Your task to perform on an android device: Open Android settings Image 0: 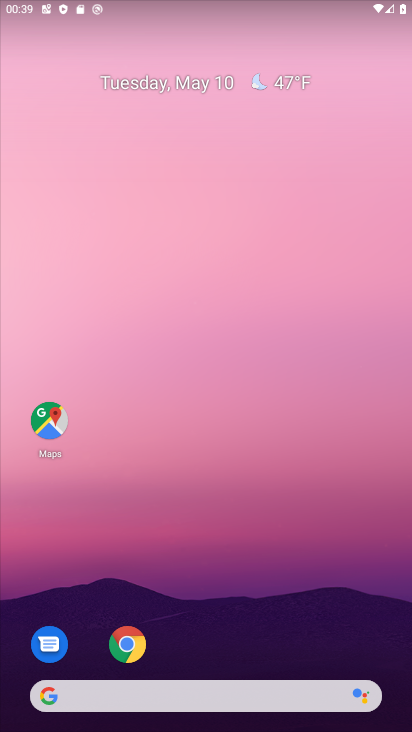
Step 0: drag from (185, 660) to (320, 116)
Your task to perform on an android device: Open Android settings Image 1: 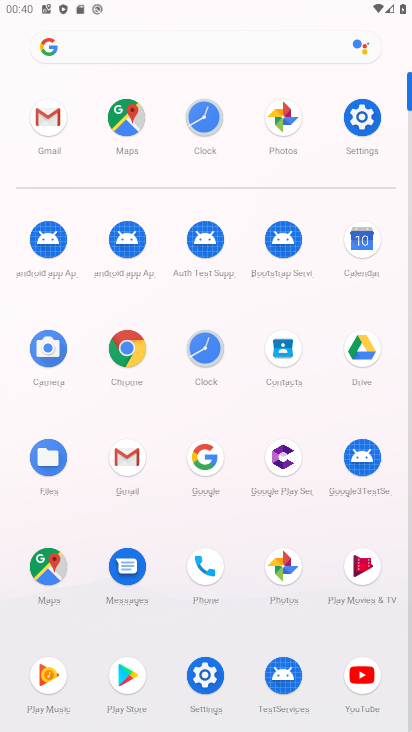
Step 1: click (369, 117)
Your task to perform on an android device: Open Android settings Image 2: 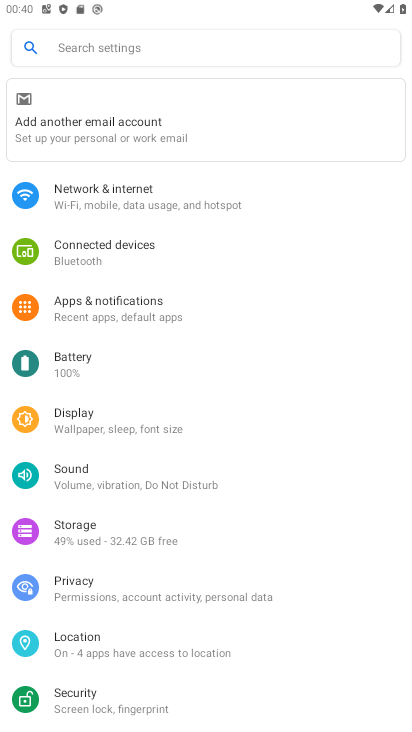
Step 2: drag from (164, 708) to (314, 161)
Your task to perform on an android device: Open Android settings Image 3: 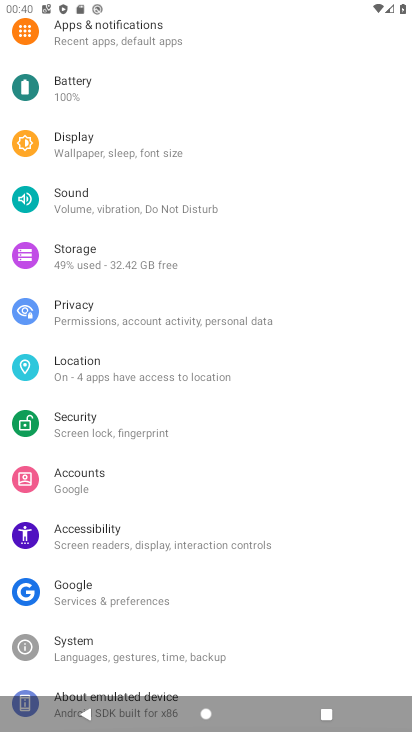
Step 3: drag from (214, 636) to (275, 118)
Your task to perform on an android device: Open Android settings Image 4: 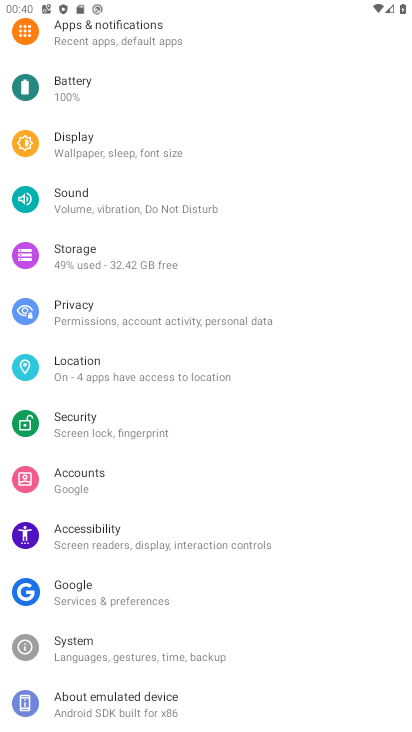
Step 4: click (104, 715)
Your task to perform on an android device: Open Android settings Image 5: 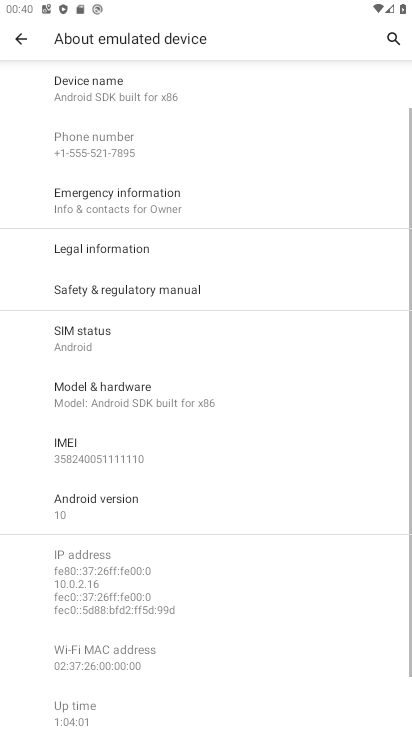
Step 5: click (117, 510)
Your task to perform on an android device: Open Android settings Image 6: 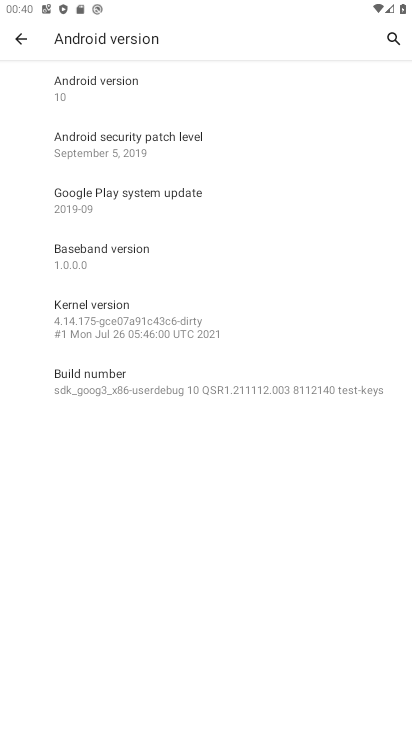
Step 6: task complete